Your task to perform on an android device: remove spam from my inbox in the gmail app Image 0: 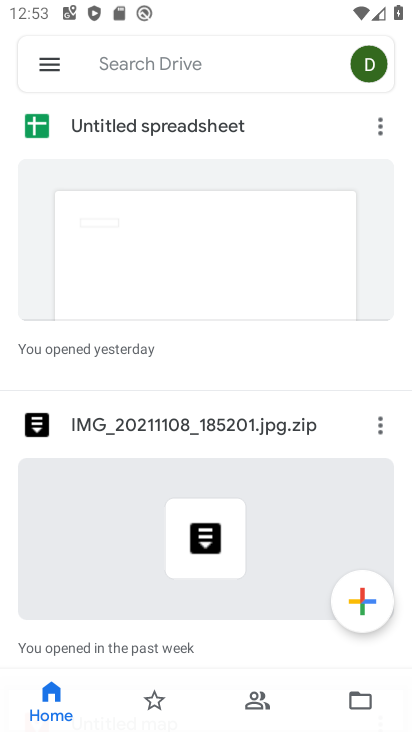
Step 0: press home button
Your task to perform on an android device: remove spam from my inbox in the gmail app Image 1: 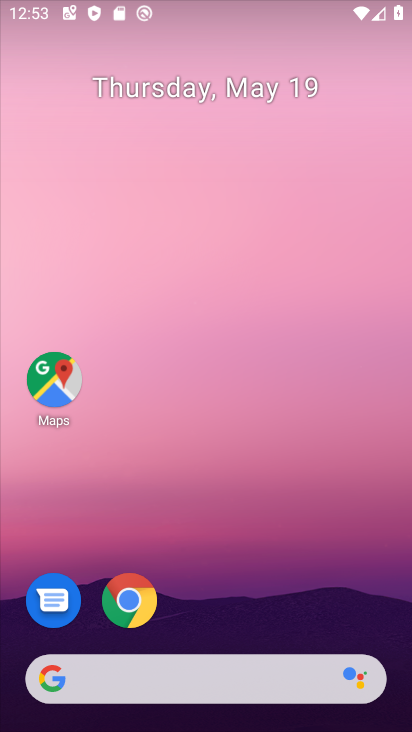
Step 1: drag from (270, 533) to (310, 17)
Your task to perform on an android device: remove spam from my inbox in the gmail app Image 2: 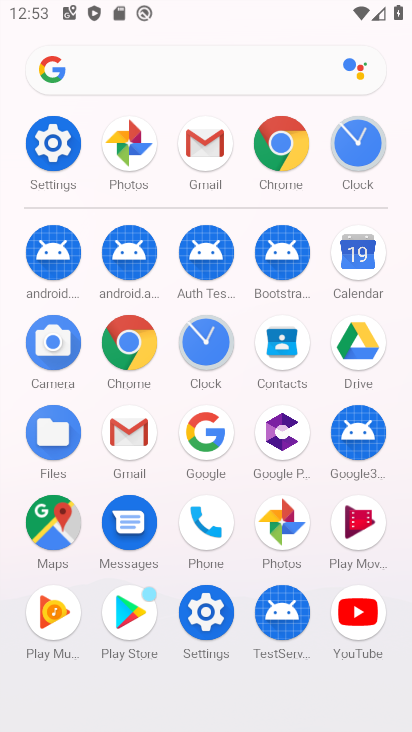
Step 2: click (210, 154)
Your task to perform on an android device: remove spam from my inbox in the gmail app Image 3: 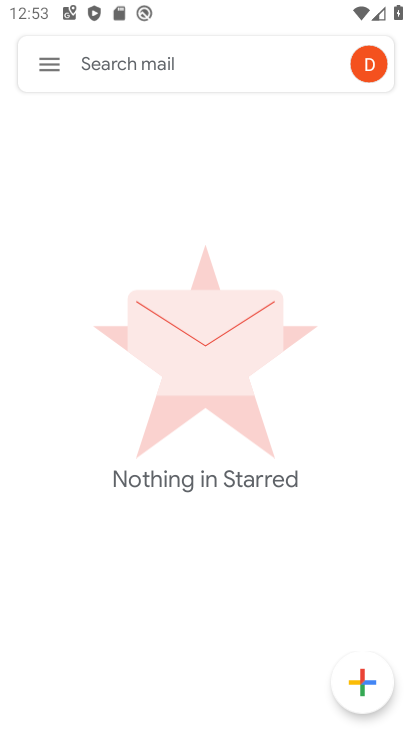
Step 3: click (39, 66)
Your task to perform on an android device: remove spam from my inbox in the gmail app Image 4: 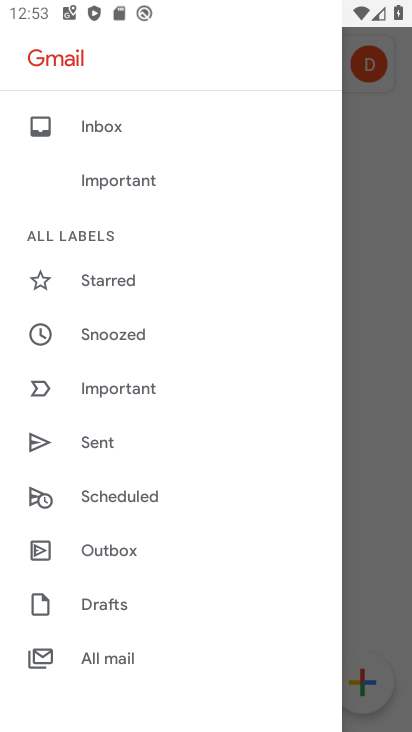
Step 4: task complete